Your task to perform on an android device: uninstall "Fetch Rewards" Image 0: 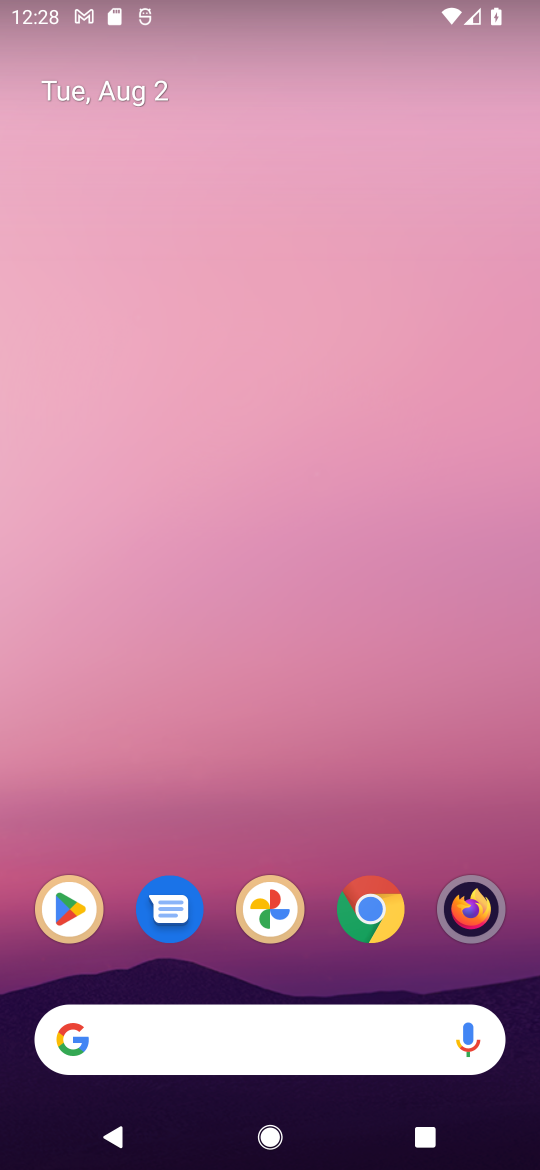
Step 0: click (65, 910)
Your task to perform on an android device: uninstall "Fetch Rewards" Image 1: 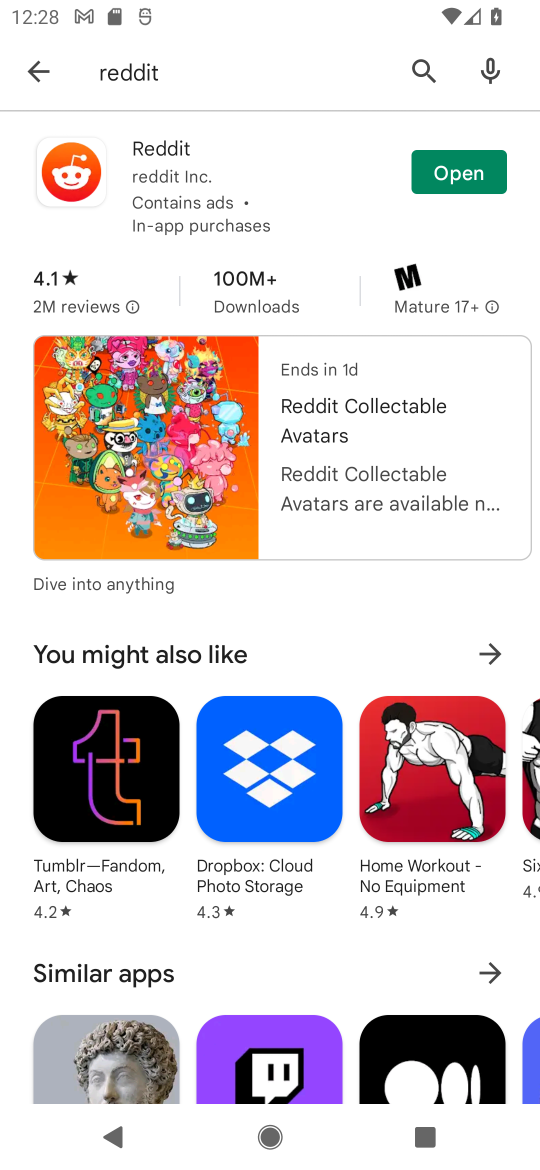
Step 1: click (418, 65)
Your task to perform on an android device: uninstall "Fetch Rewards" Image 2: 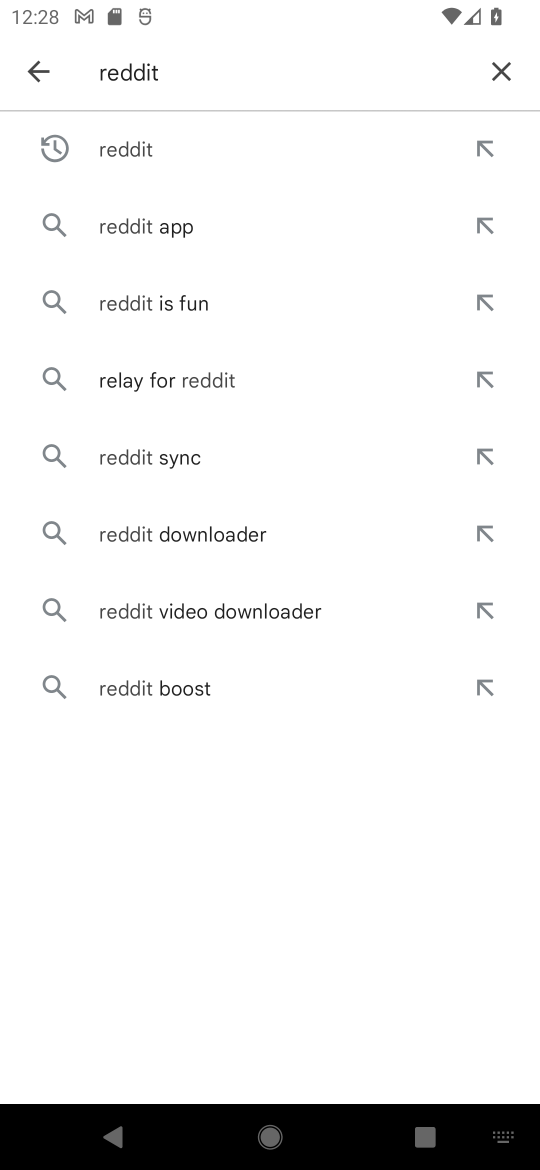
Step 2: click (495, 71)
Your task to perform on an android device: uninstall "Fetch Rewards" Image 3: 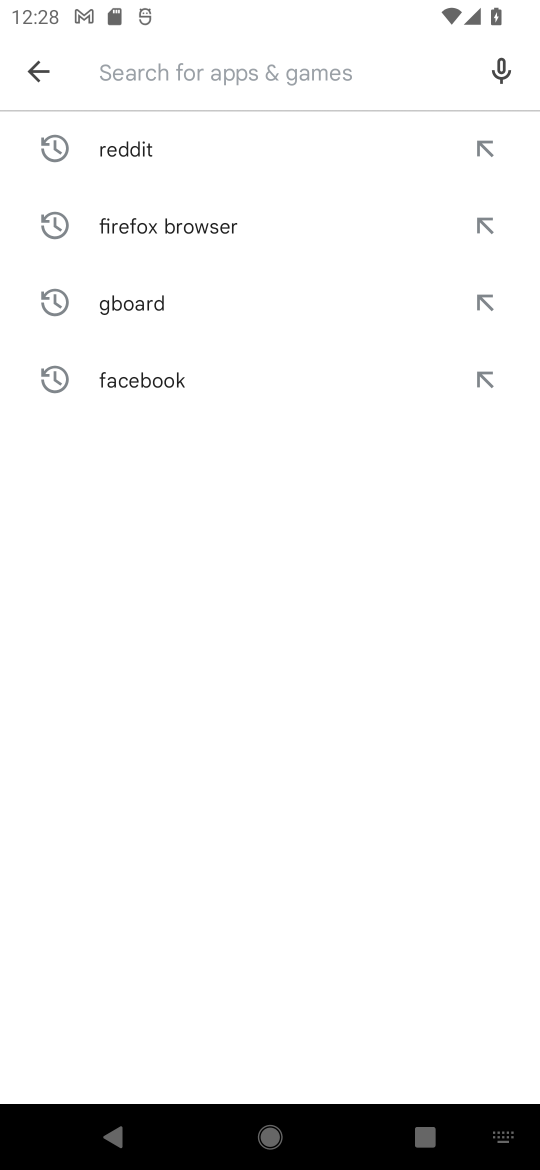
Step 3: type "Fetch Rewards"
Your task to perform on an android device: uninstall "Fetch Rewards" Image 4: 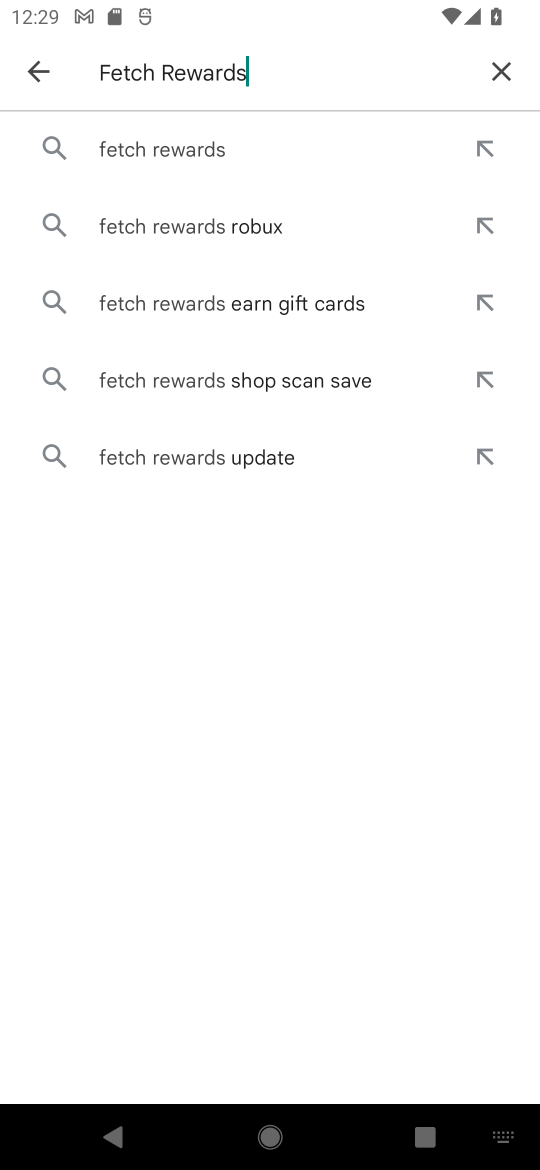
Step 4: click (182, 149)
Your task to perform on an android device: uninstall "Fetch Rewards" Image 5: 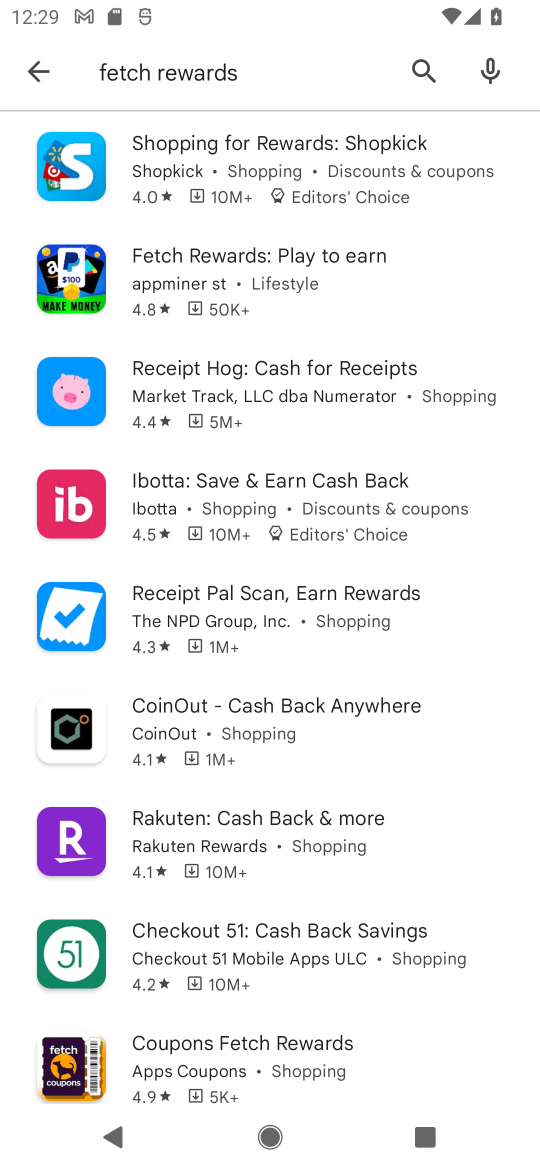
Step 5: click (203, 264)
Your task to perform on an android device: uninstall "Fetch Rewards" Image 6: 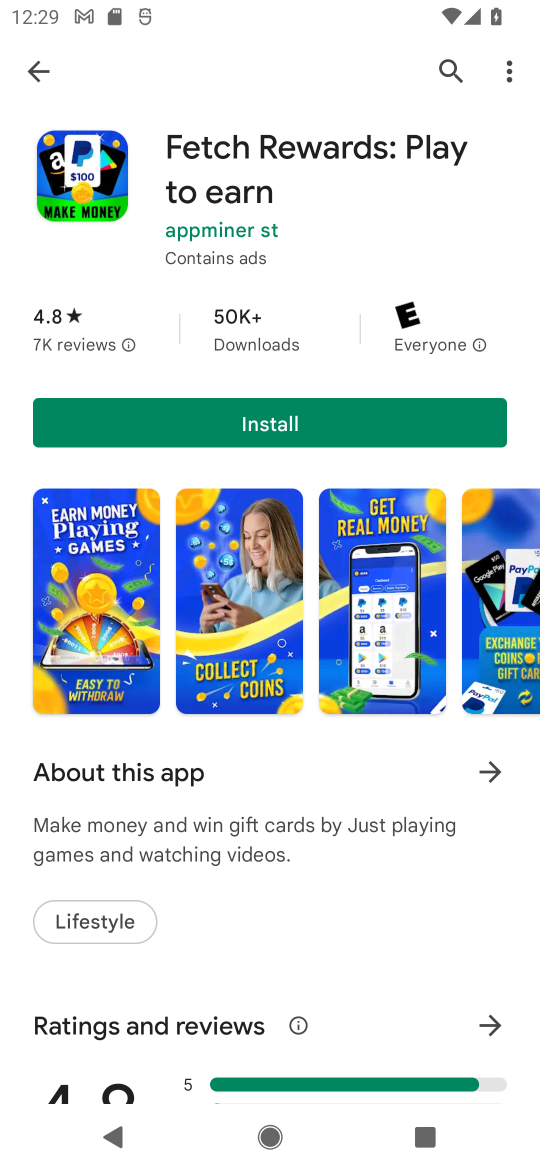
Step 6: task complete